Your task to perform on an android device: Open Android settings Image 0: 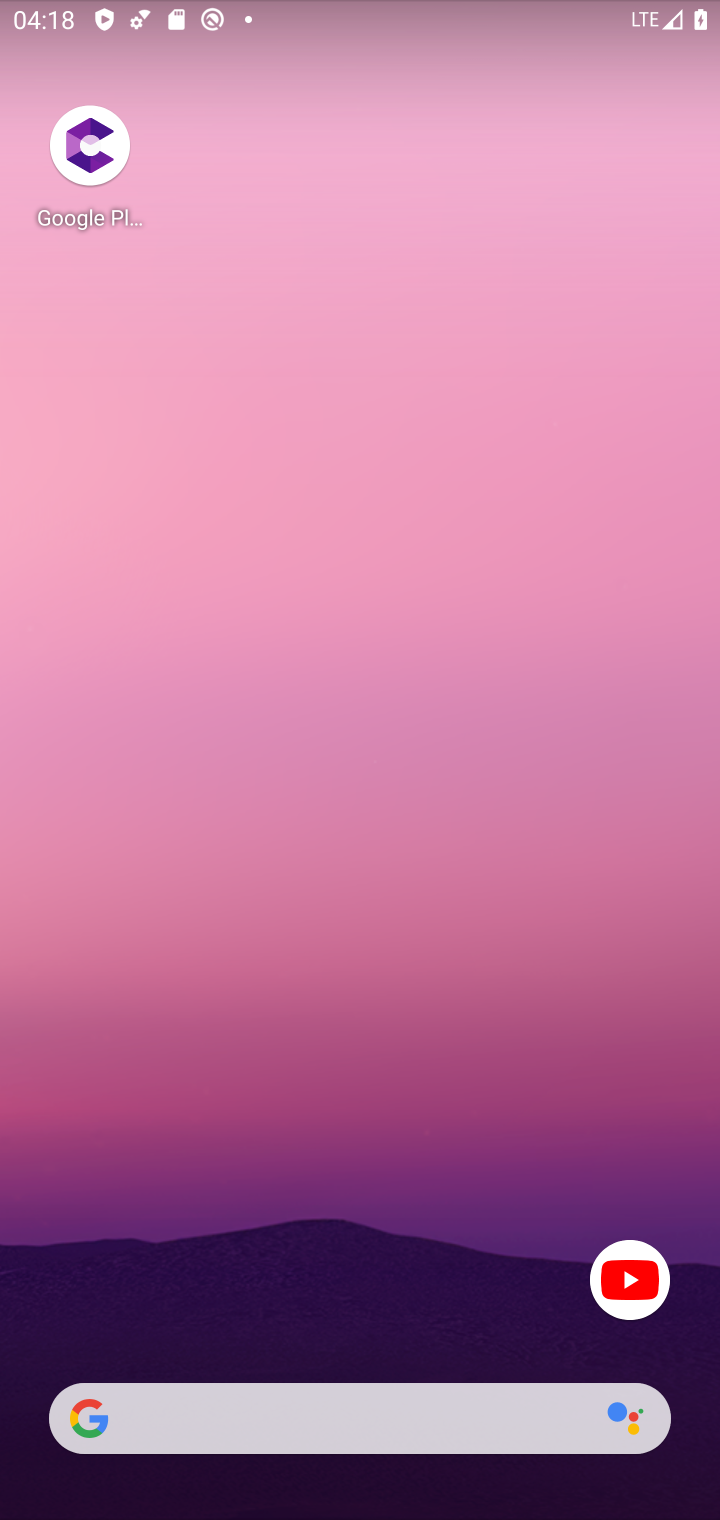
Step 0: drag from (439, 1083) to (395, 461)
Your task to perform on an android device: Open Android settings Image 1: 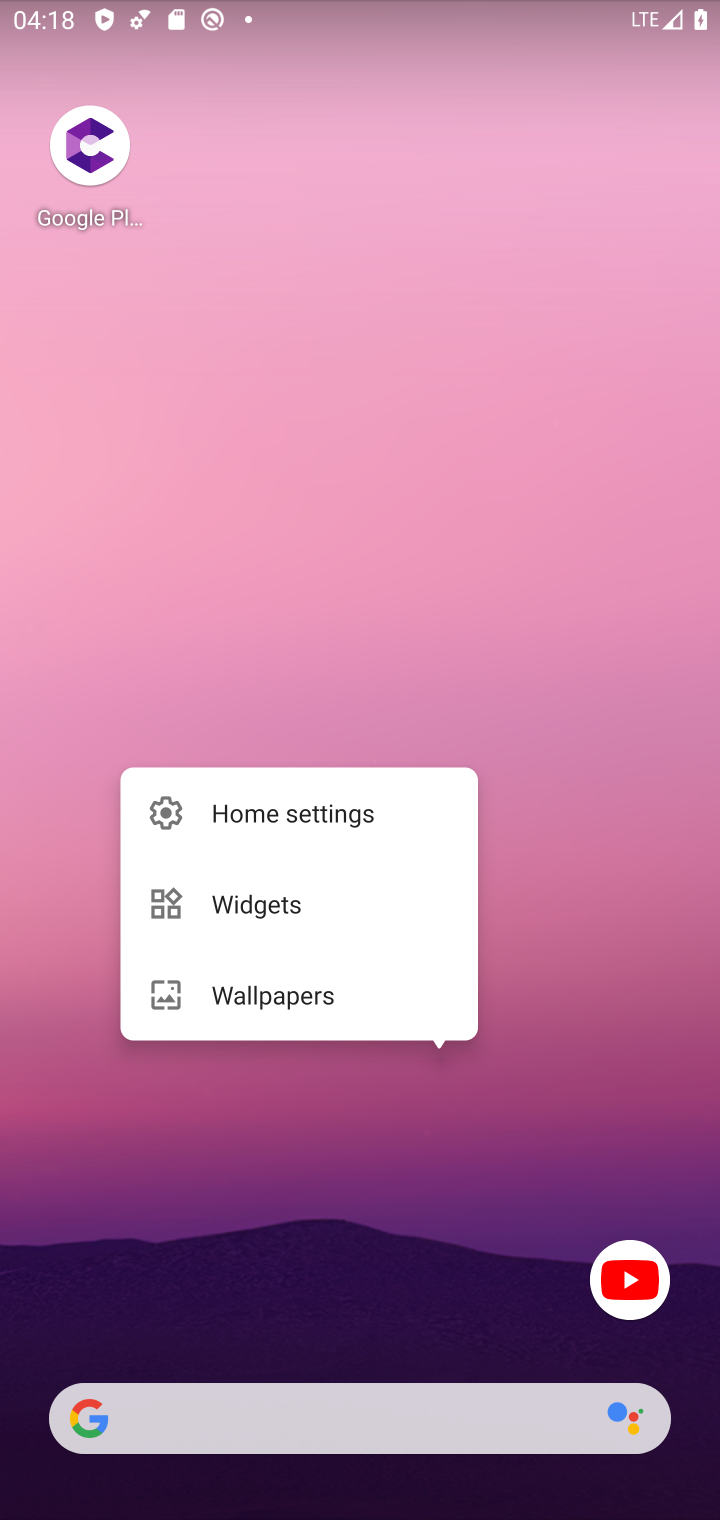
Step 1: drag from (500, 849) to (306, 45)
Your task to perform on an android device: Open Android settings Image 2: 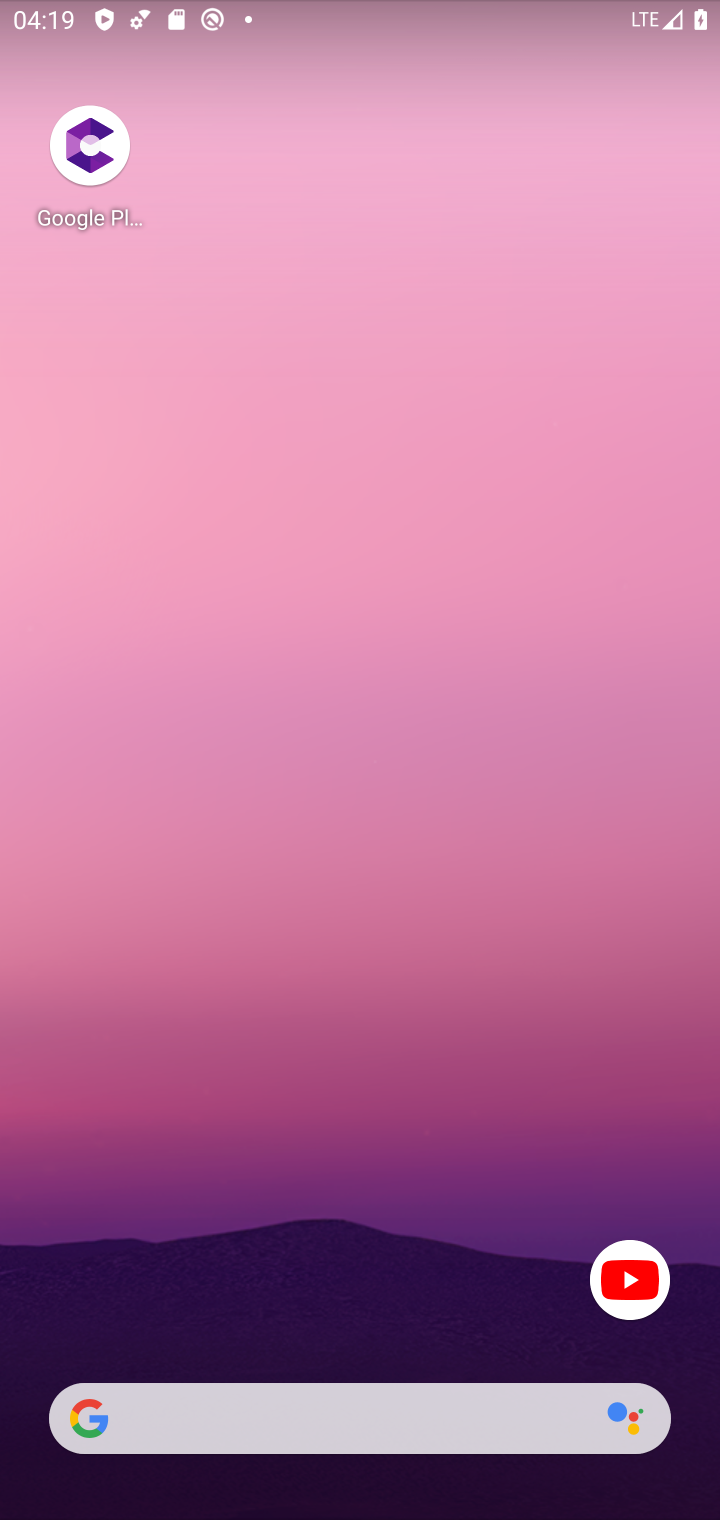
Step 2: drag from (397, 827) to (534, 634)
Your task to perform on an android device: Open Android settings Image 3: 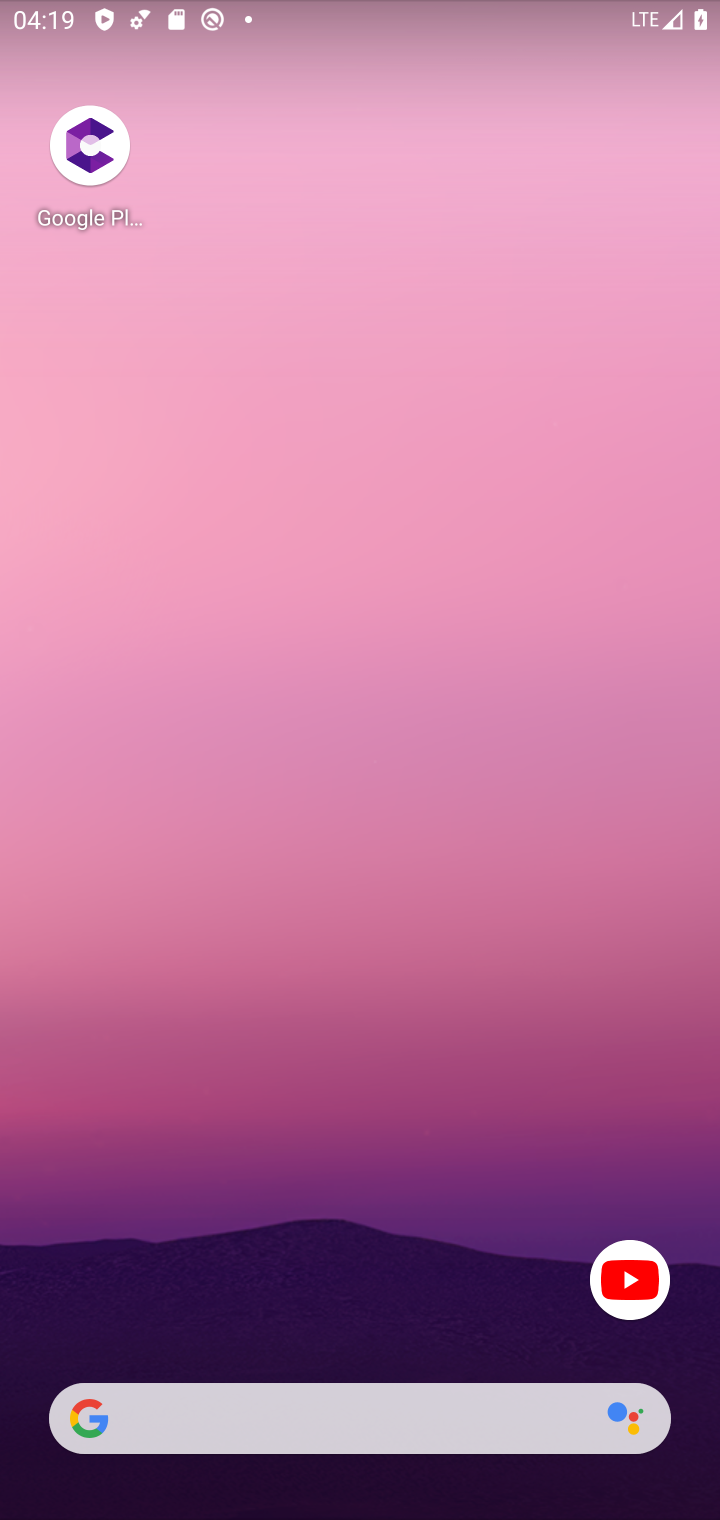
Step 3: drag from (407, 1137) to (363, 337)
Your task to perform on an android device: Open Android settings Image 4: 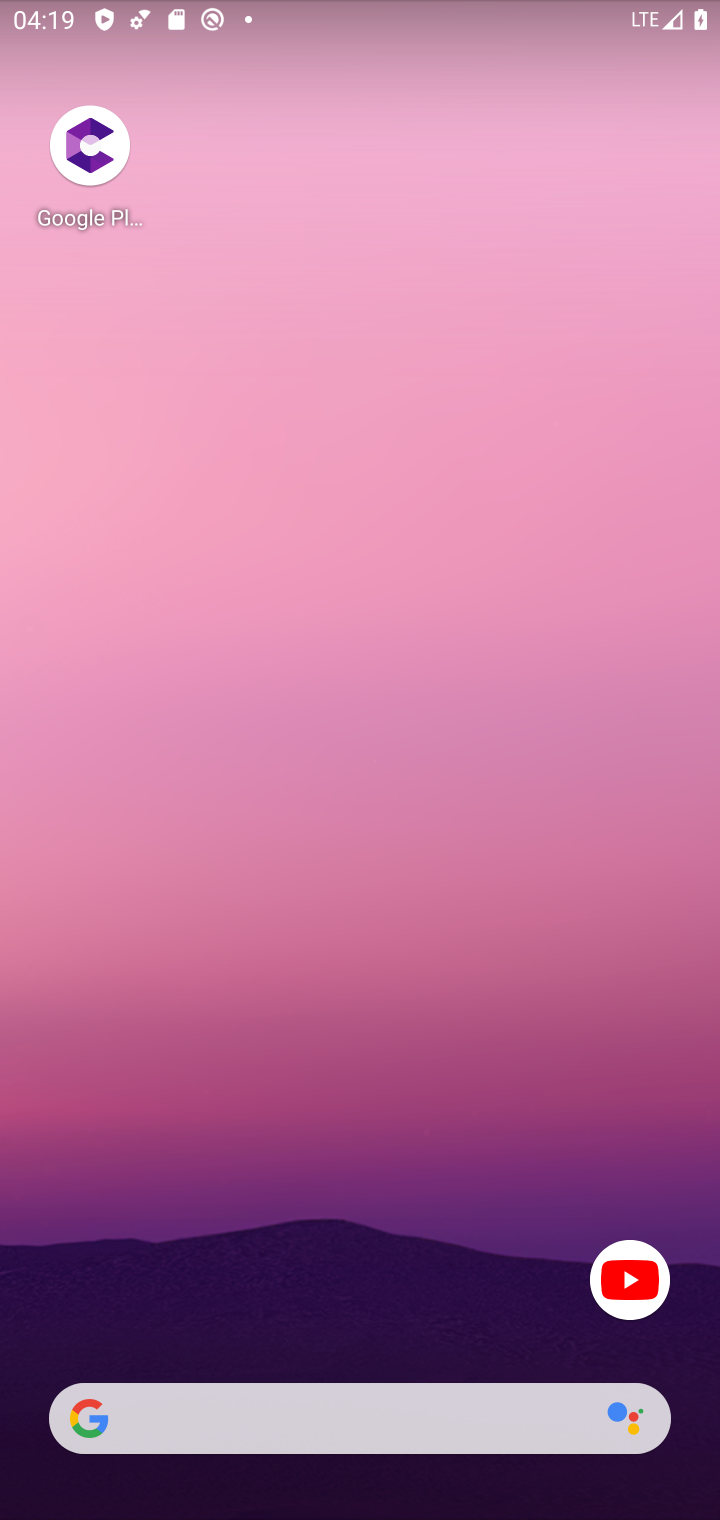
Step 4: drag from (245, 1118) to (545, 323)
Your task to perform on an android device: Open Android settings Image 5: 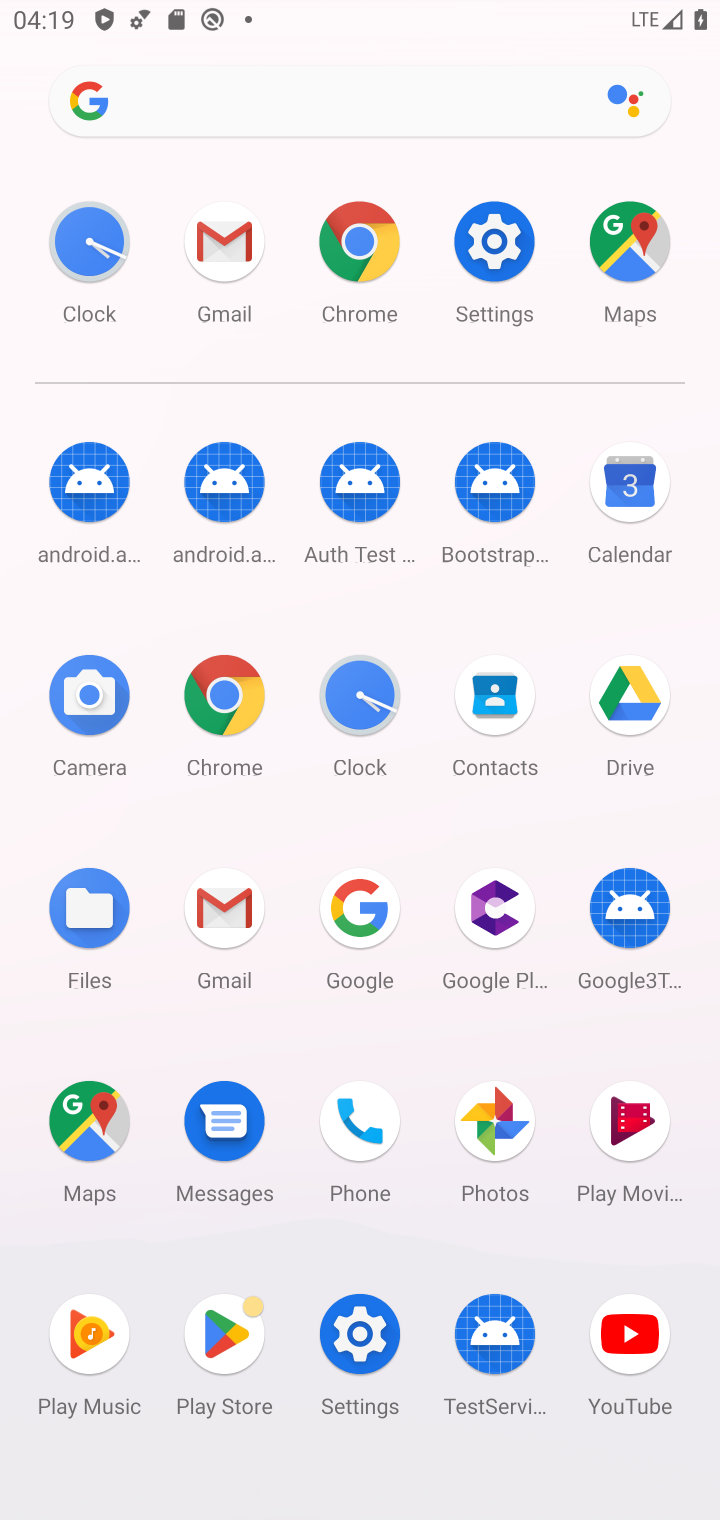
Step 5: click (346, 1348)
Your task to perform on an android device: Open Android settings Image 6: 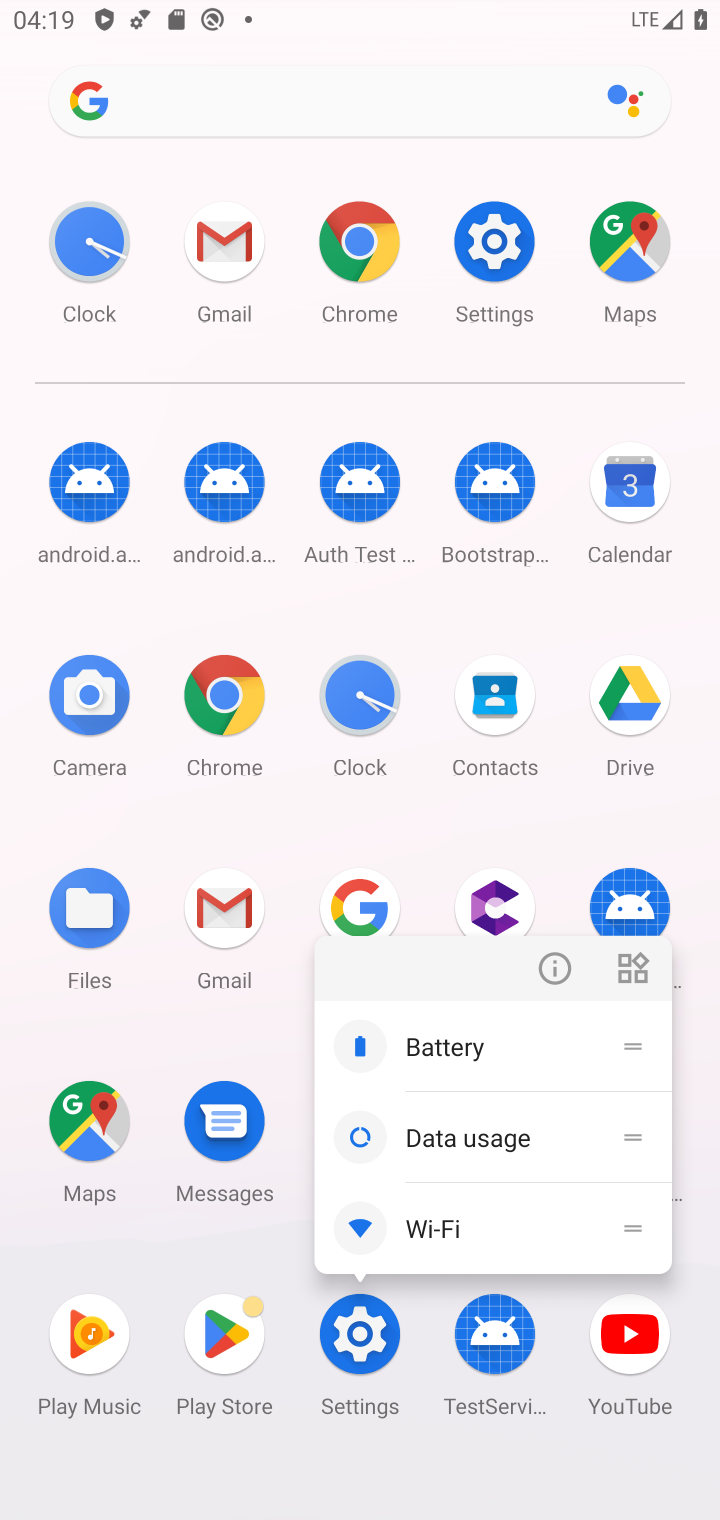
Step 6: click (368, 1304)
Your task to perform on an android device: Open Android settings Image 7: 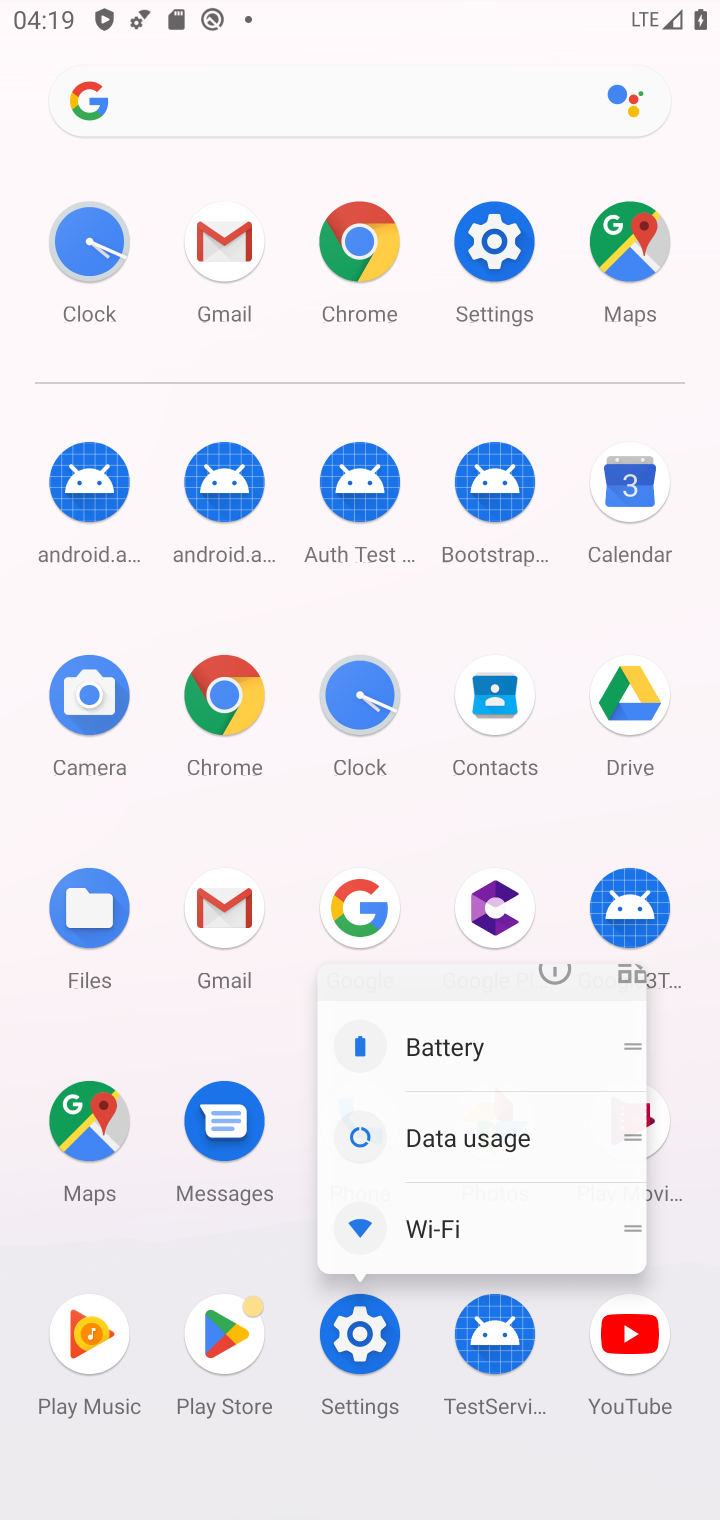
Step 7: click (368, 1304)
Your task to perform on an android device: Open Android settings Image 8: 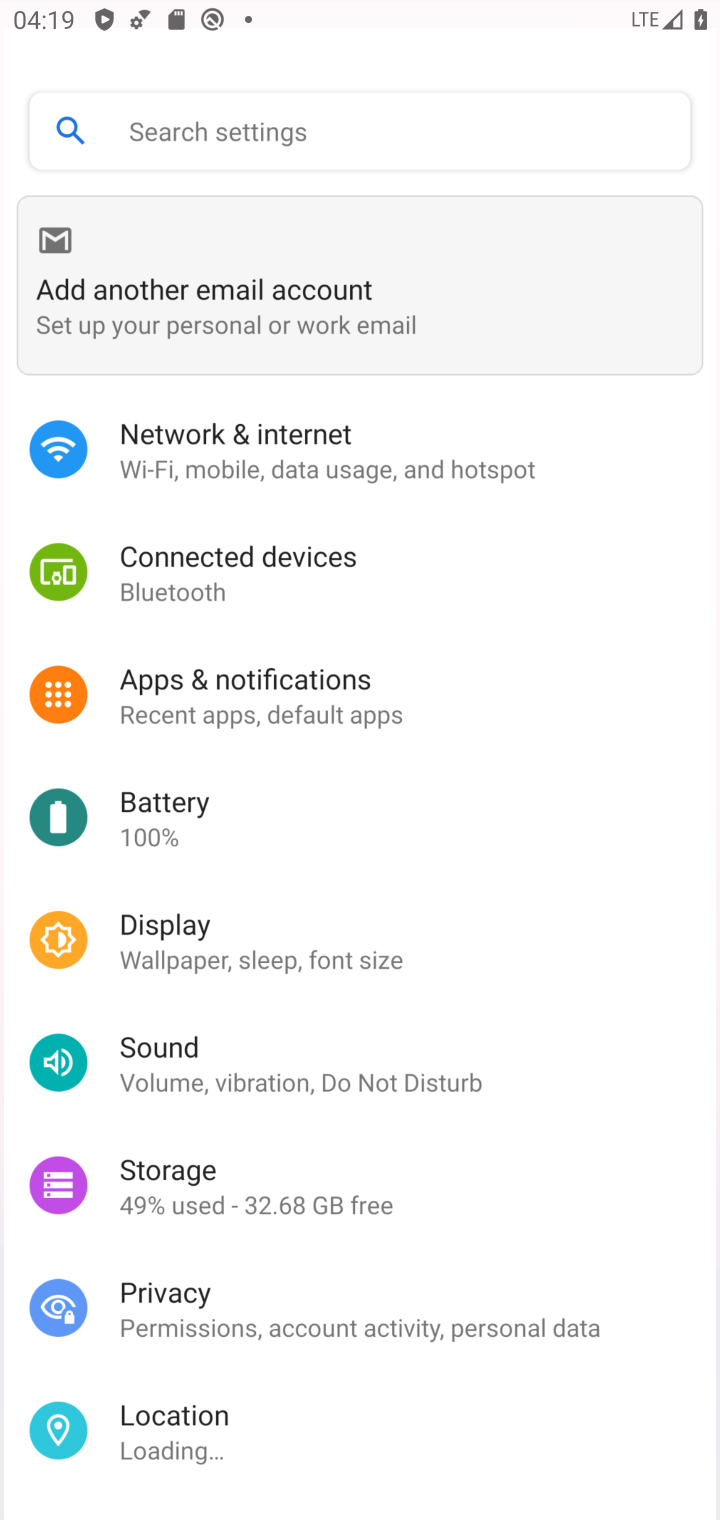
Step 8: click (368, 1304)
Your task to perform on an android device: Open Android settings Image 9: 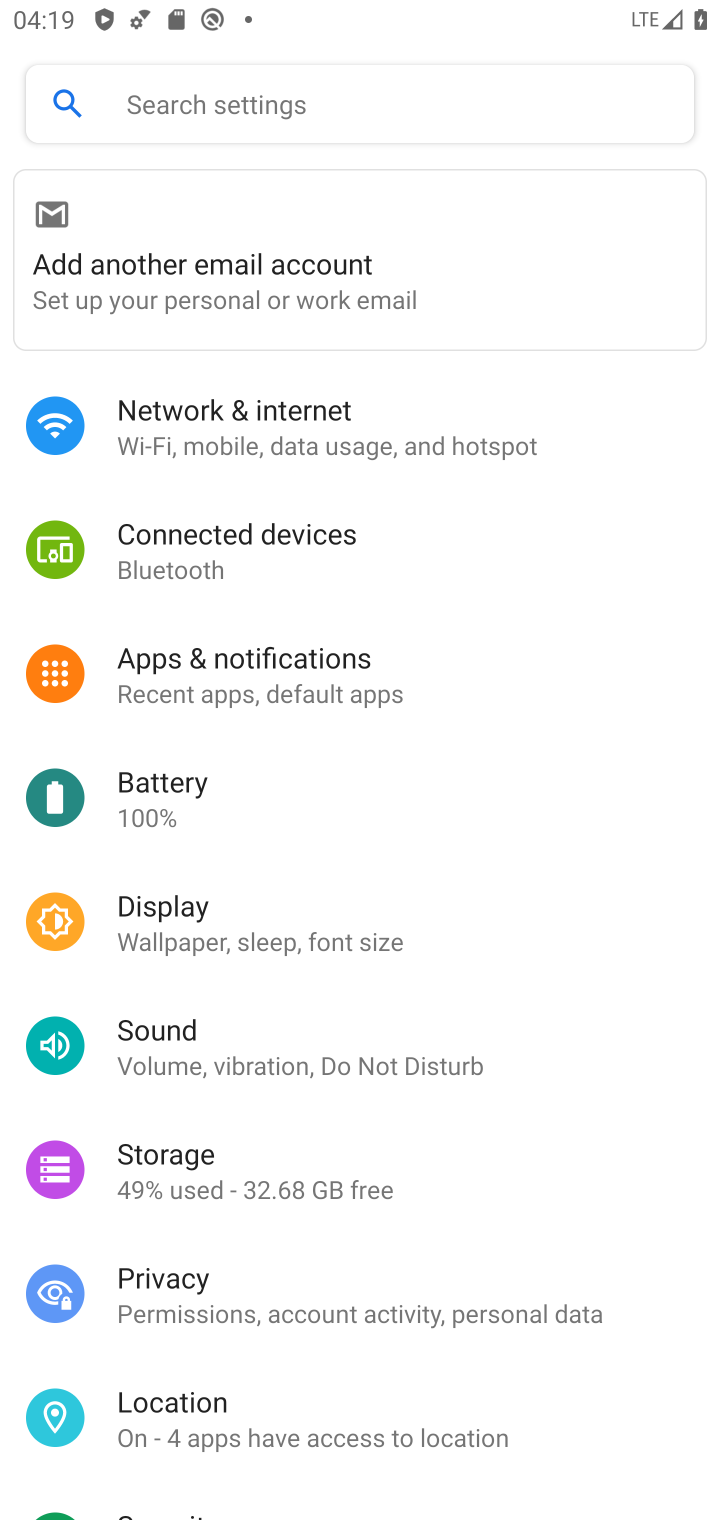
Step 9: drag from (305, 1414) to (431, 588)
Your task to perform on an android device: Open Android settings Image 10: 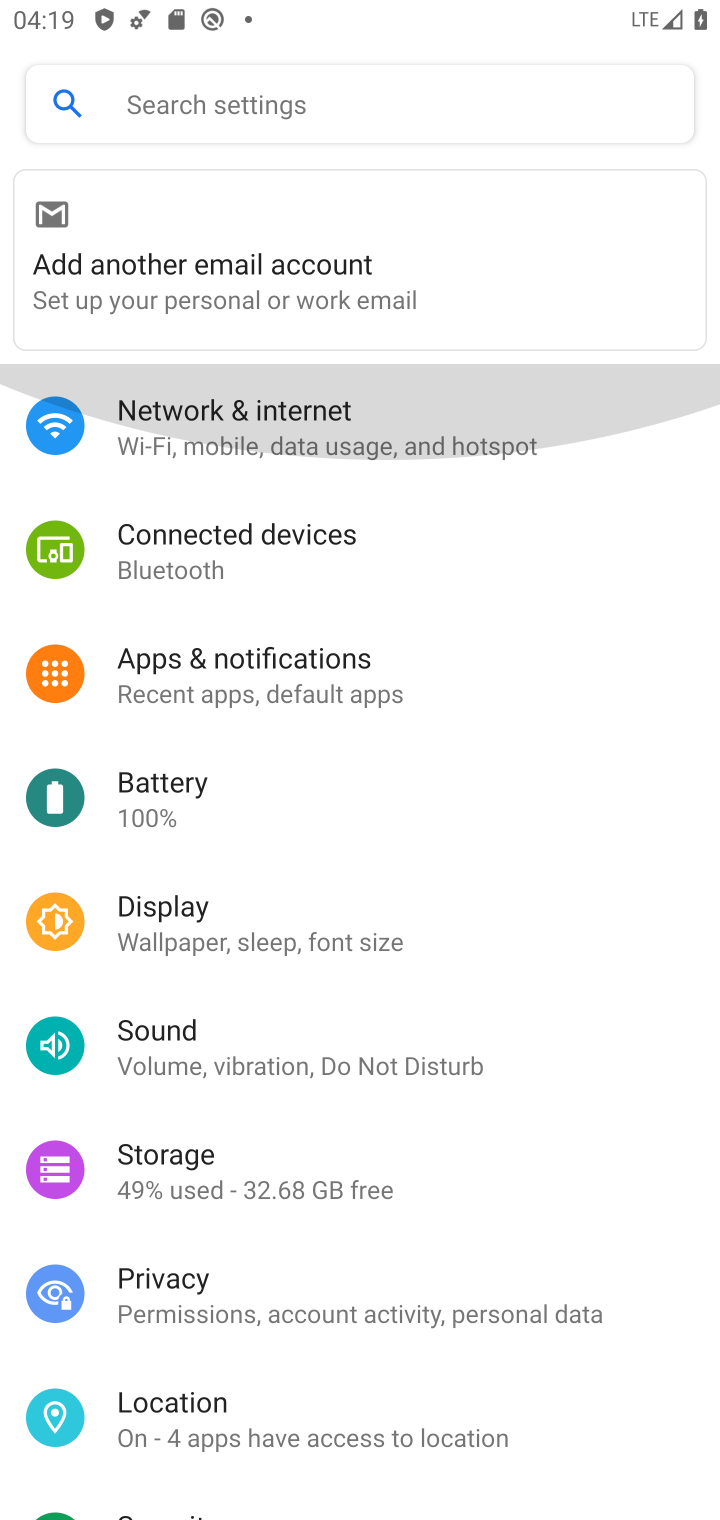
Step 10: drag from (421, 1033) to (371, 708)
Your task to perform on an android device: Open Android settings Image 11: 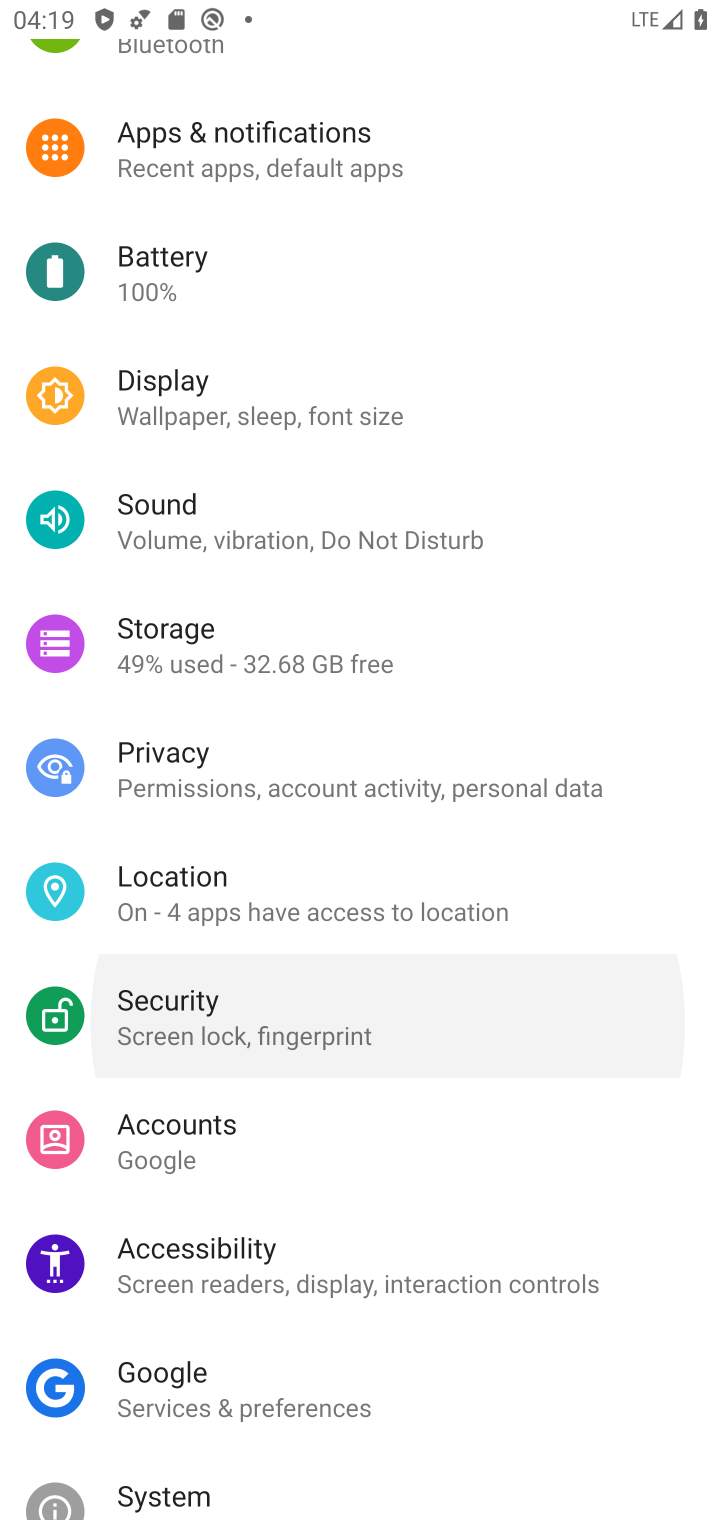
Step 11: drag from (144, 1421) to (144, 779)
Your task to perform on an android device: Open Android settings Image 12: 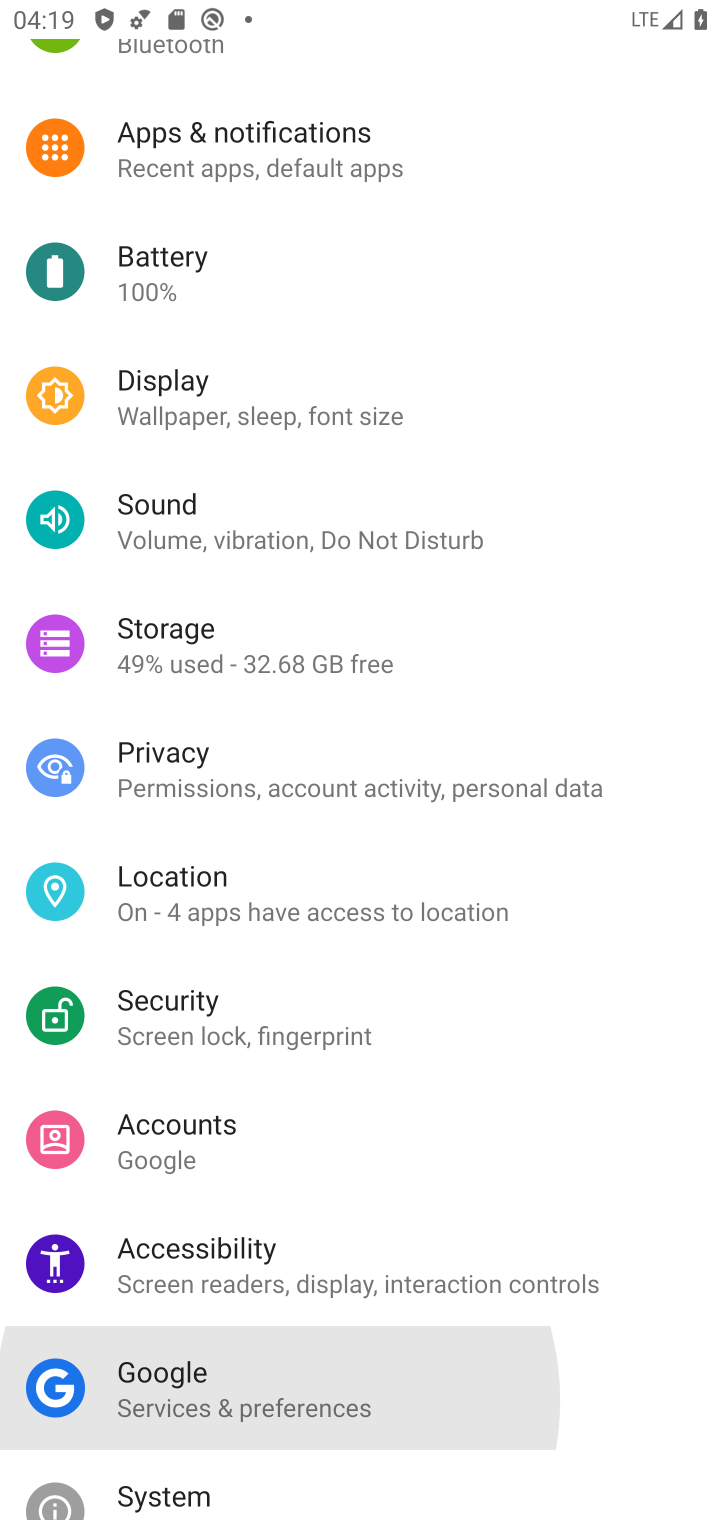
Step 12: click (245, 797)
Your task to perform on an android device: Open Android settings Image 13: 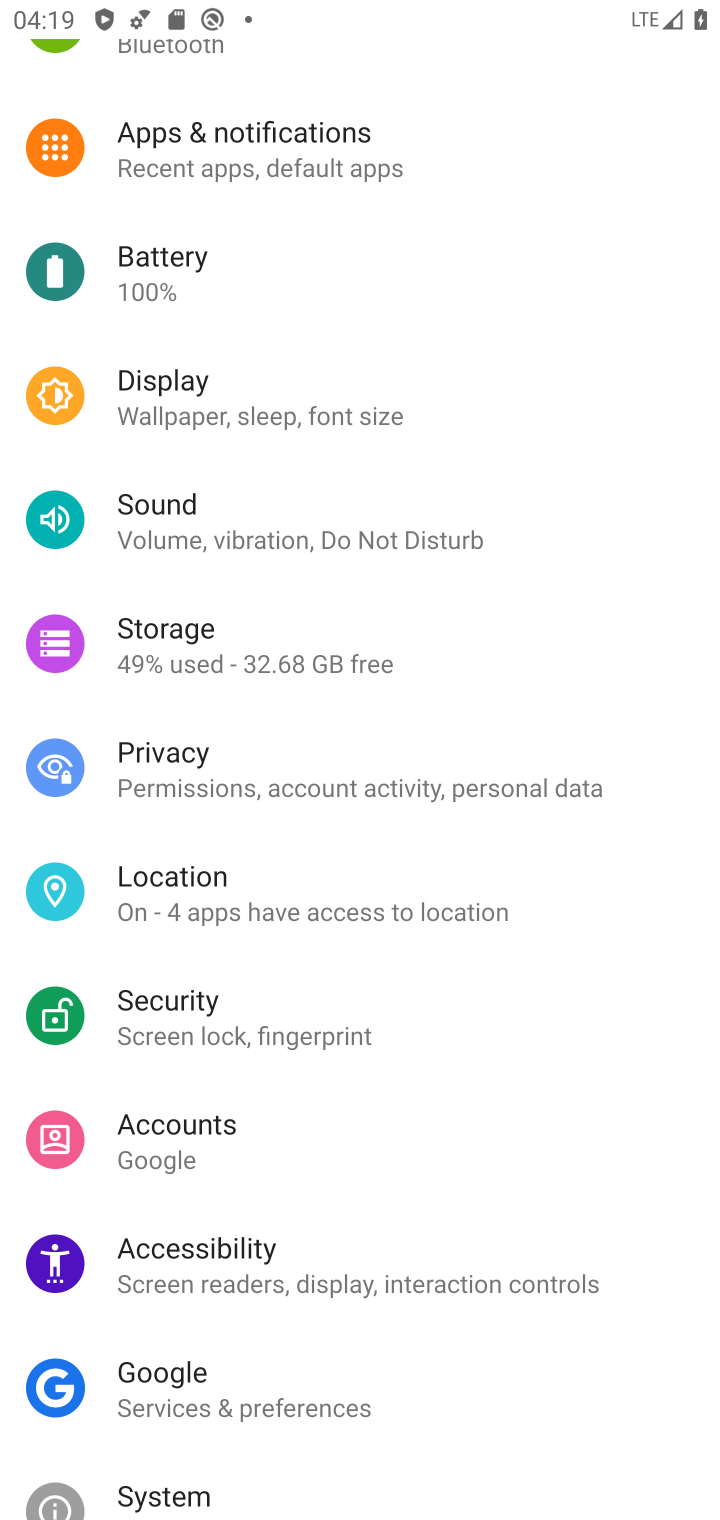
Step 13: drag from (256, 1204) to (292, 731)
Your task to perform on an android device: Open Android settings Image 14: 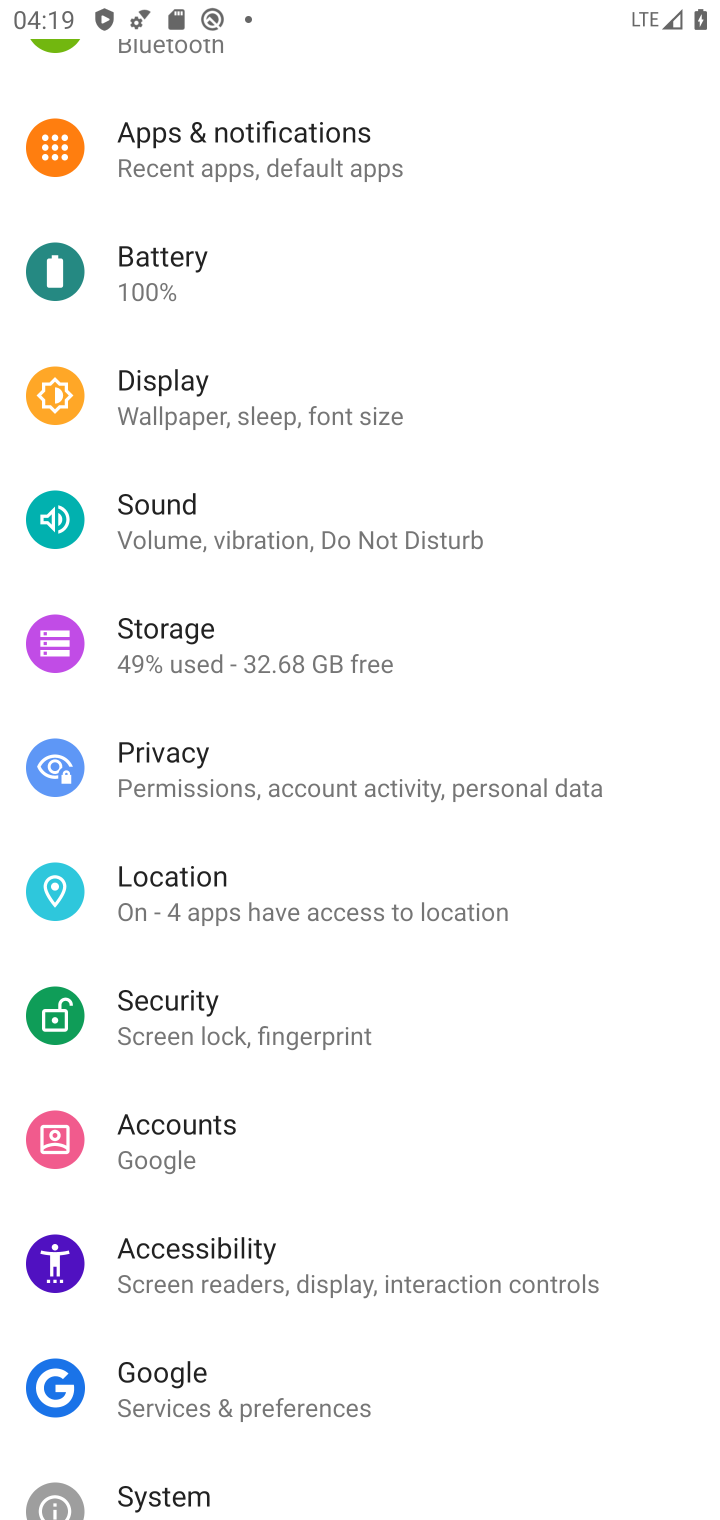
Step 14: drag from (296, 1172) to (296, 997)
Your task to perform on an android device: Open Android settings Image 15: 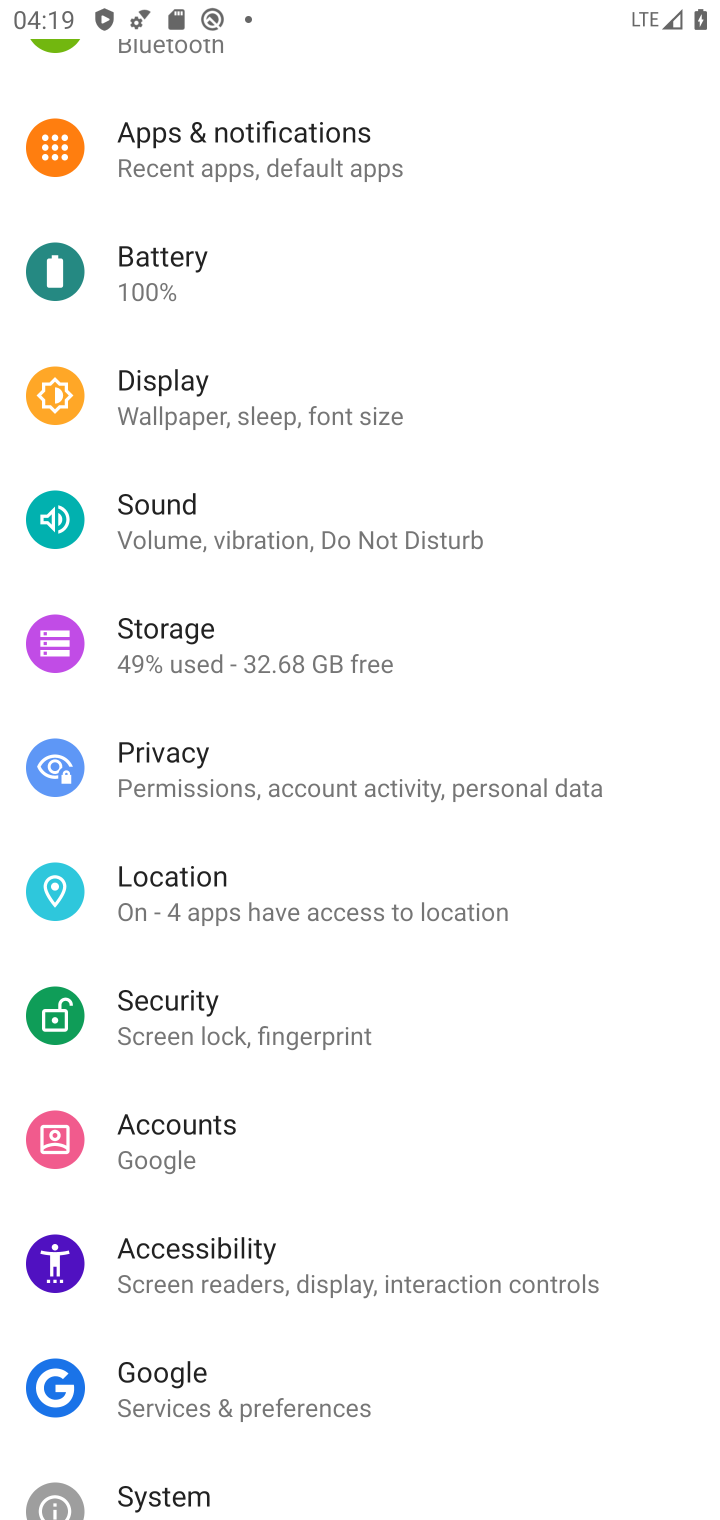
Step 15: drag from (339, 754) to (348, 438)
Your task to perform on an android device: Open Android settings Image 16: 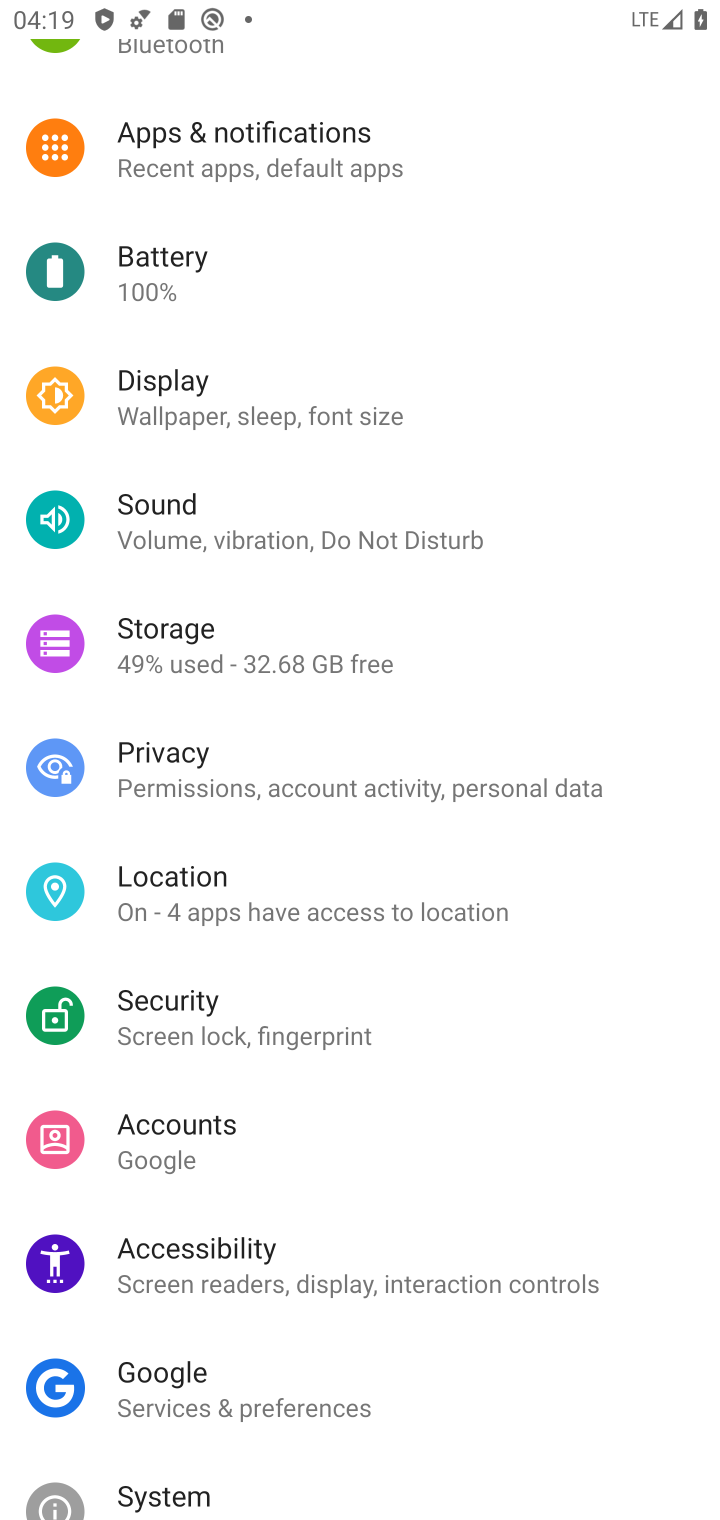
Step 16: drag from (459, 1208) to (471, 184)
Your task to perform on an android device: Open Android settings Image 17: 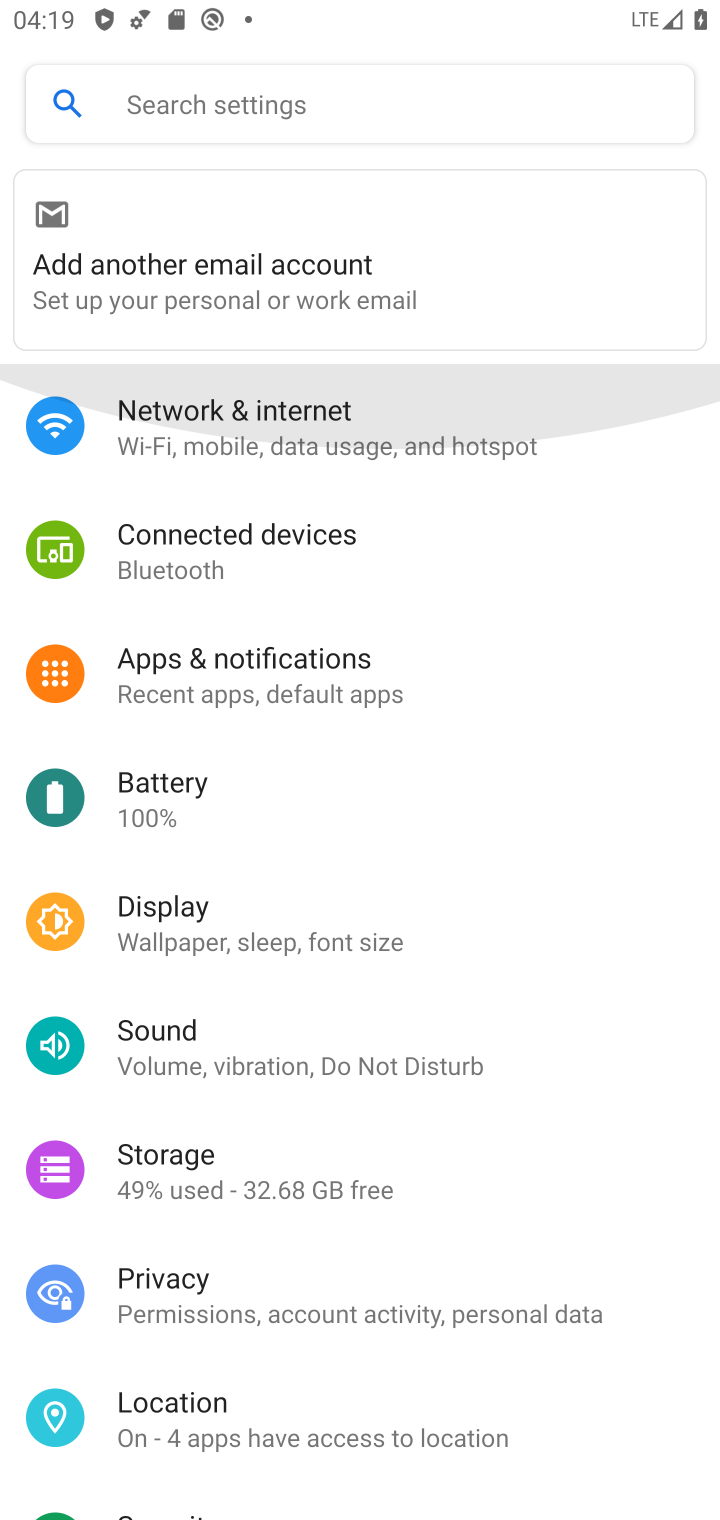
Step 17: drag from (258, 1085) to (294, 591)
Your task to perform on an android device: Open Android settings Image 18: 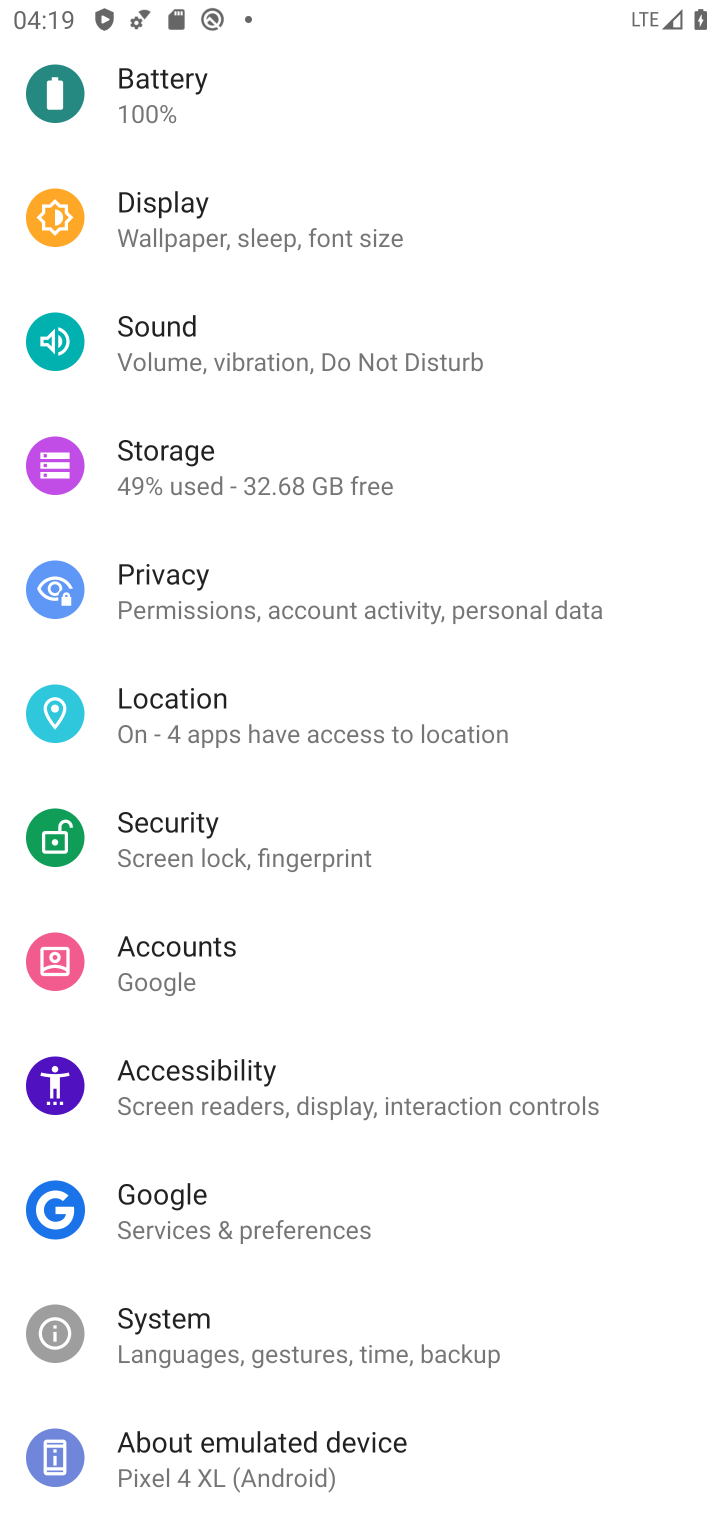
Step 18: drag from (271, 1345) to (330, 580)
Your task to perform on an android device: Open Android settings Image 19: 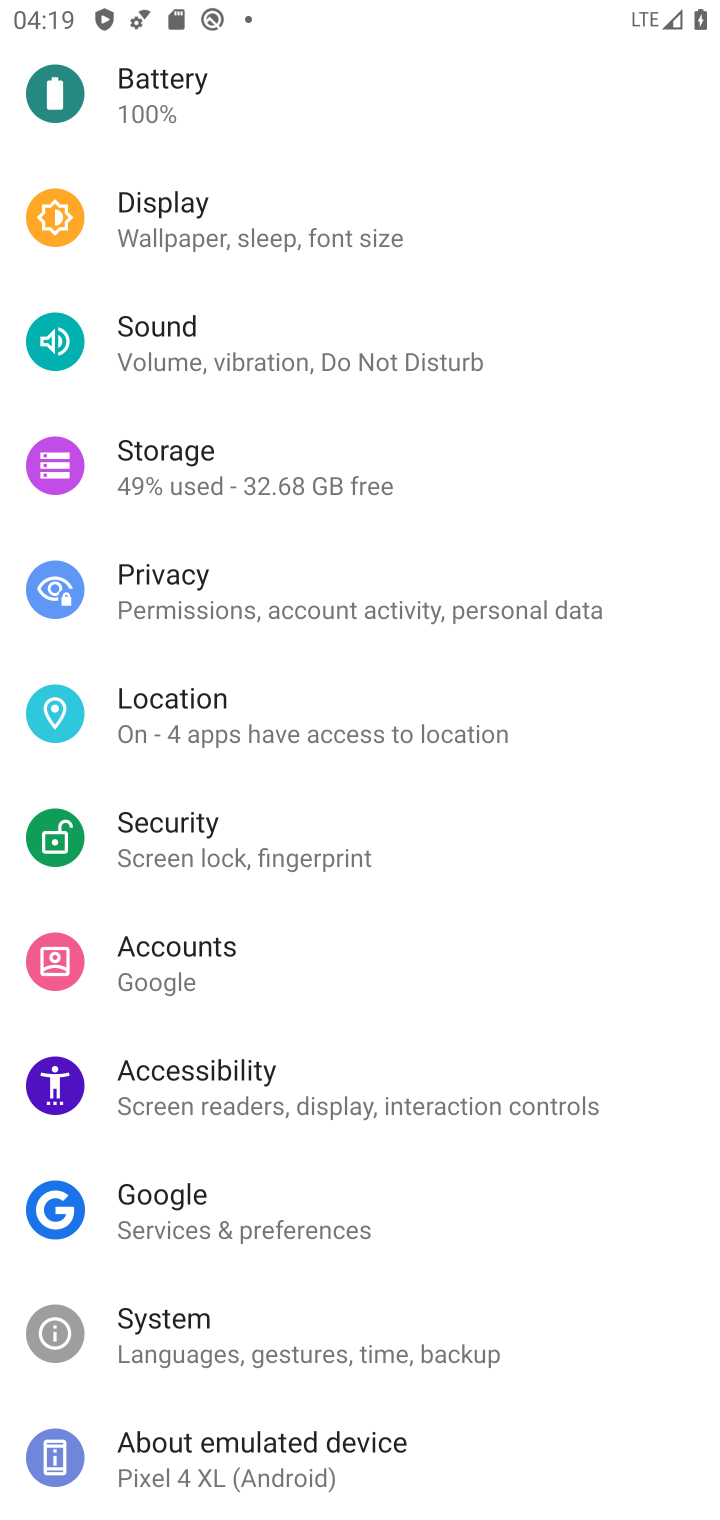
Step 19: drag from (378, 861) to (438, 332)
Your task to perform on an android device: Open Android settings Image 20: 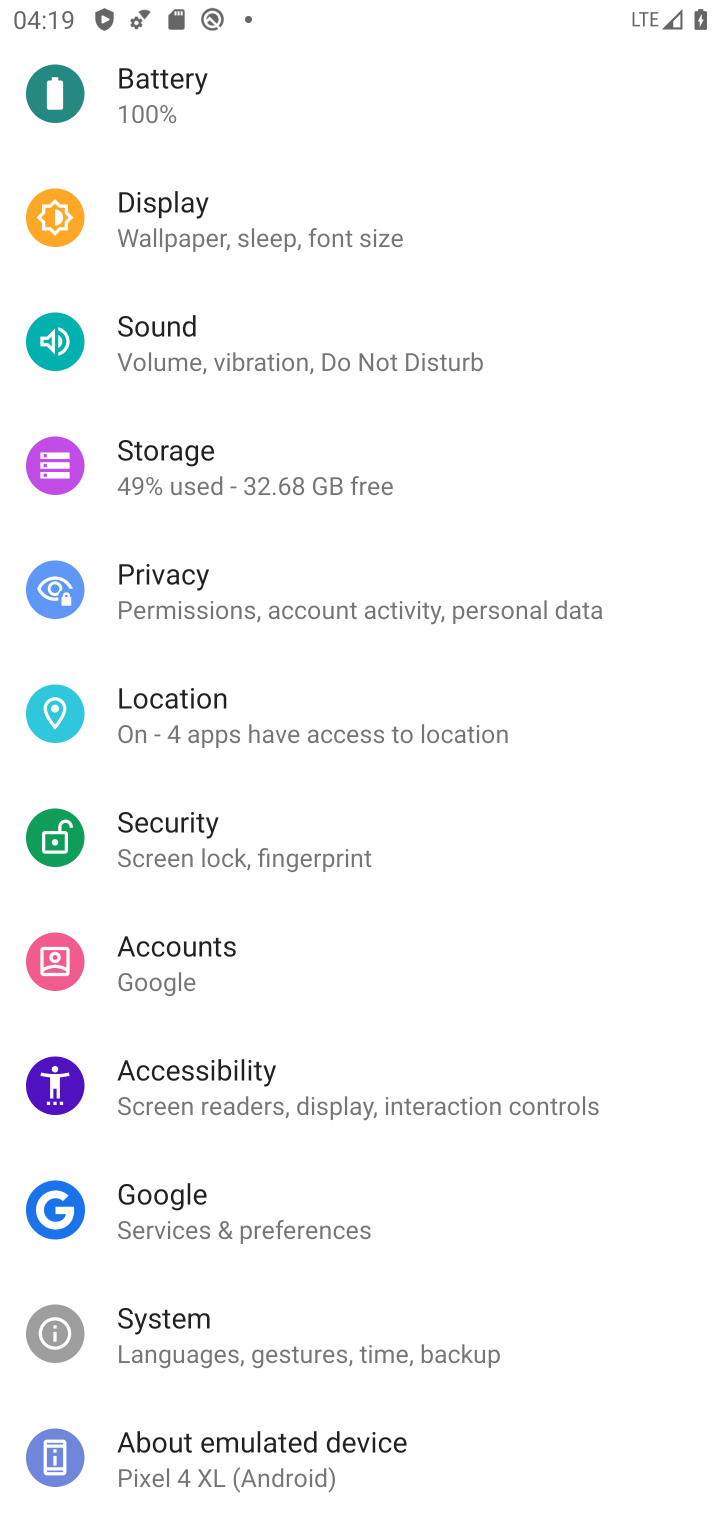
Step 20: drag from (430, 977) to (497, 548)
Your task to perform on an android device: Open Android settings Image 21: 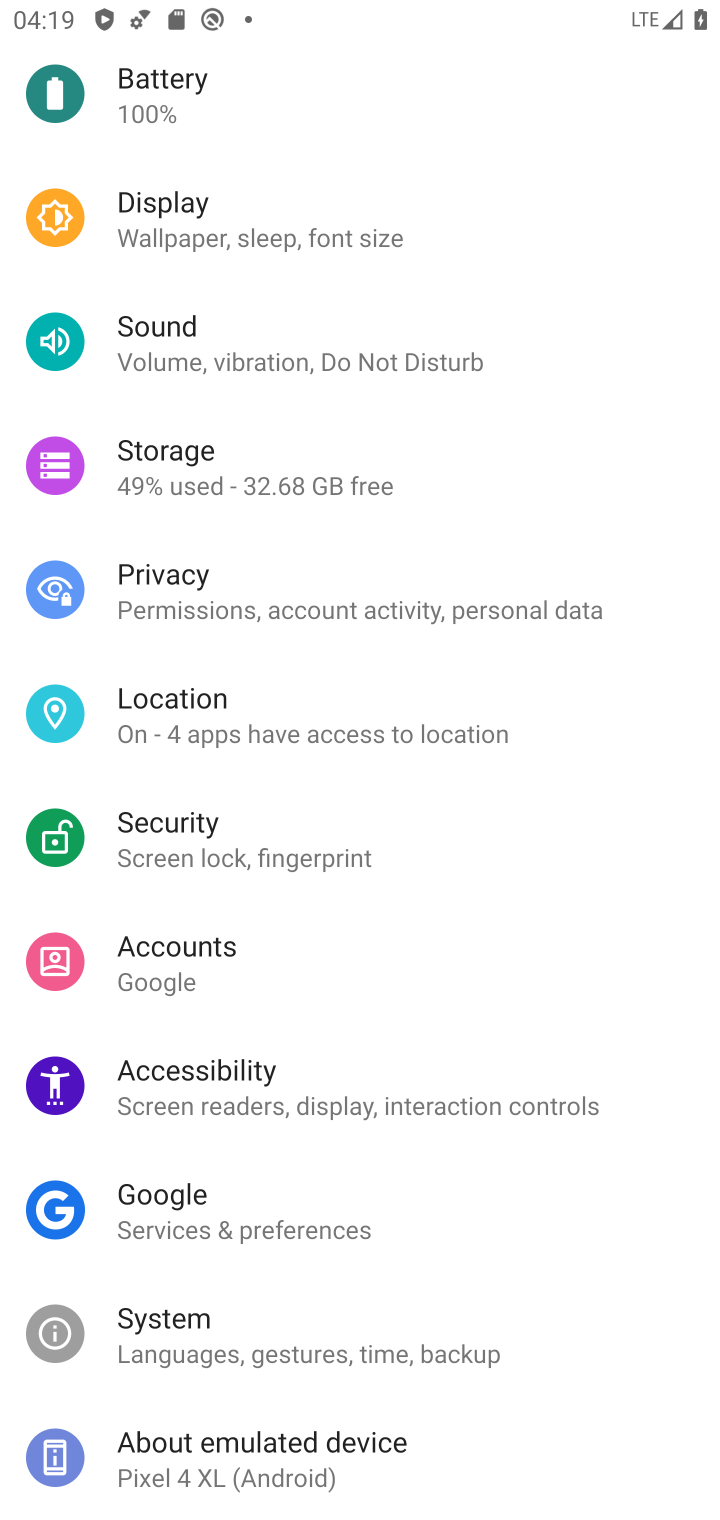
Step 21: click (267, 1439)
Your task to perform on an android device: Open Android settings Image 22: 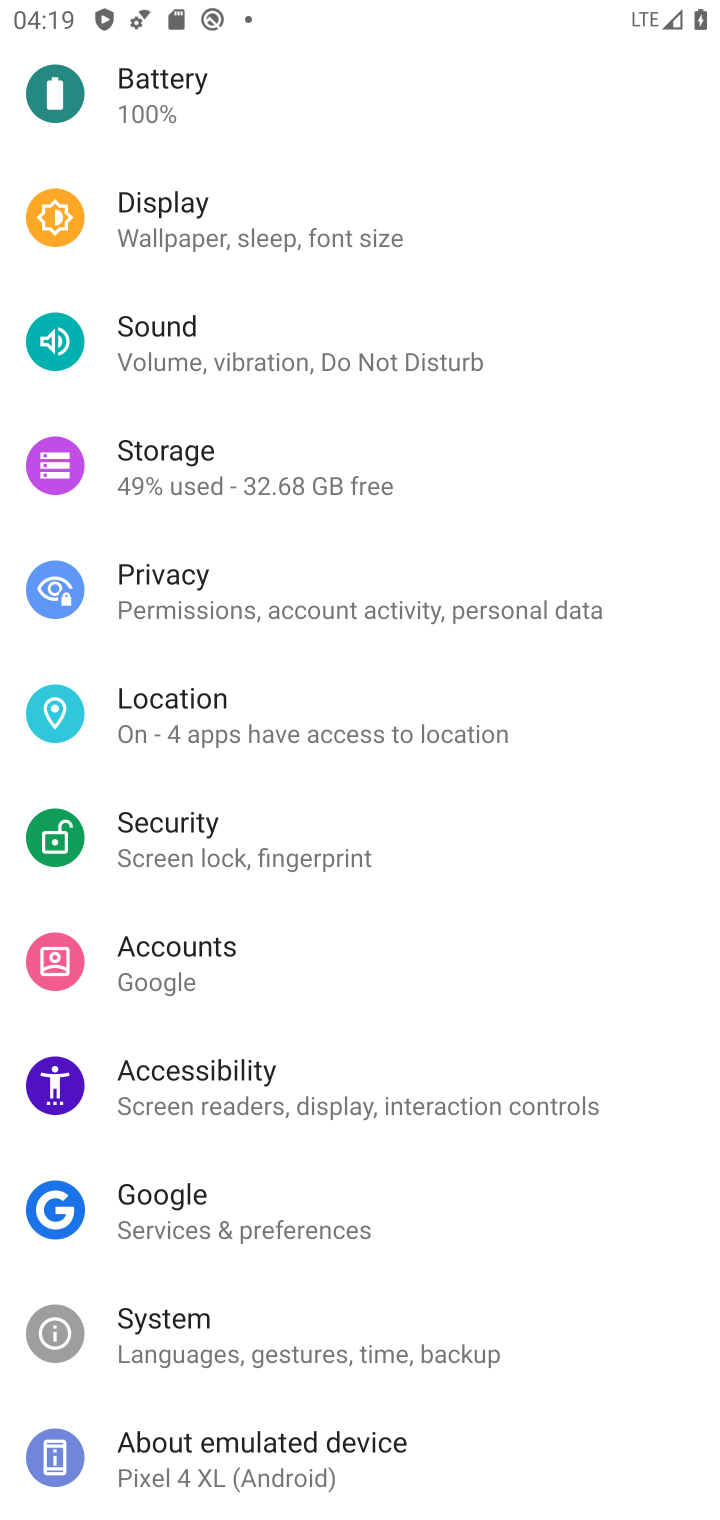
Step 22: click (265, 1441)
Your task to perform on an android device: Open Android settings Image 23: 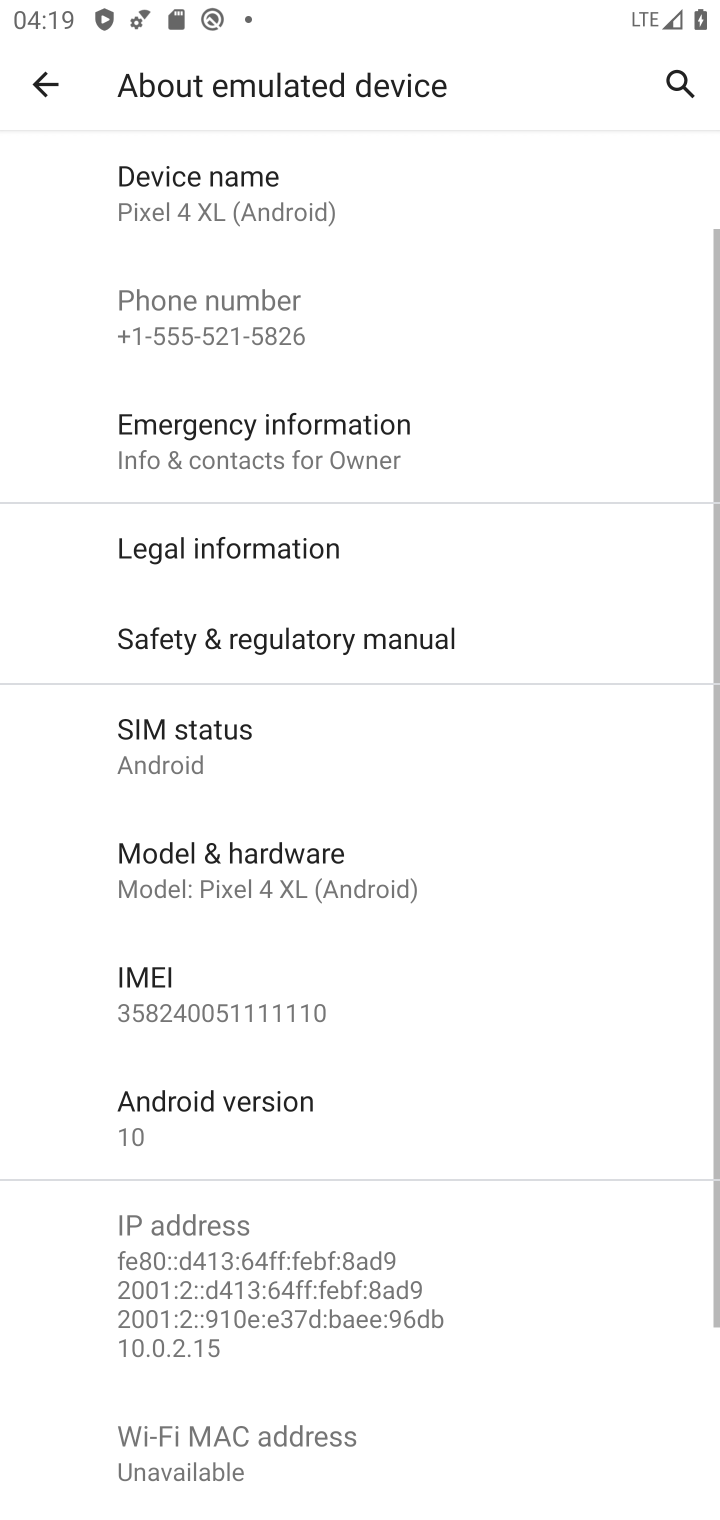
Step 23: click (262, 1446)
Your task to perform on an android device: Open Android settings Image 24: 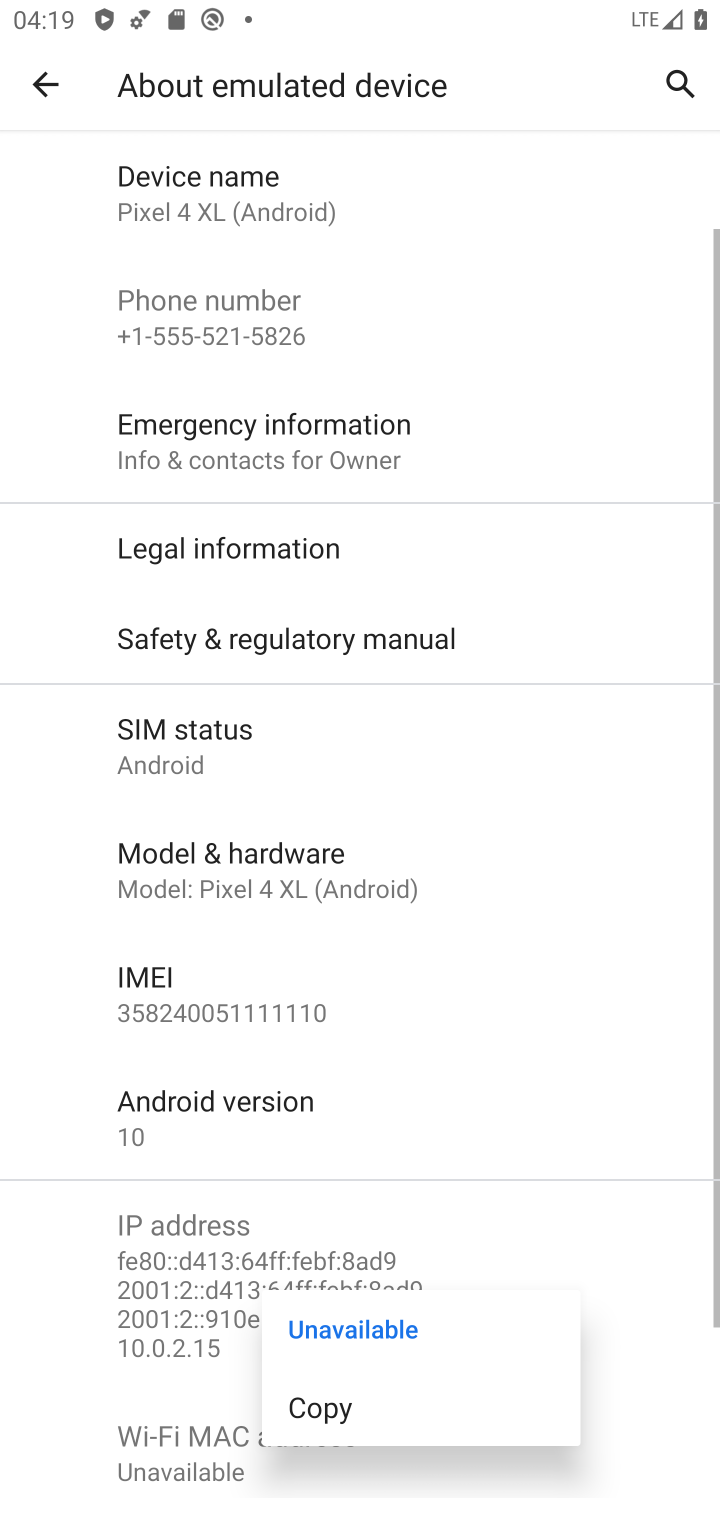
Step 24: task complete